Your task to perform on an android device: Go to Amazon Image 0: 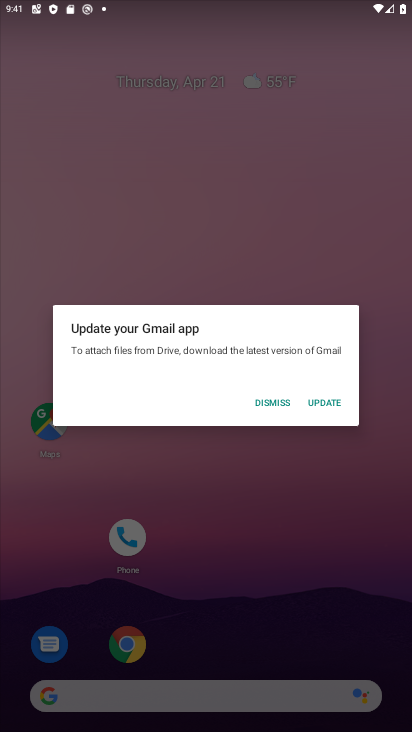
Step 0: press home button
Your task to perform on an android device: Go to Amazon Image 1: 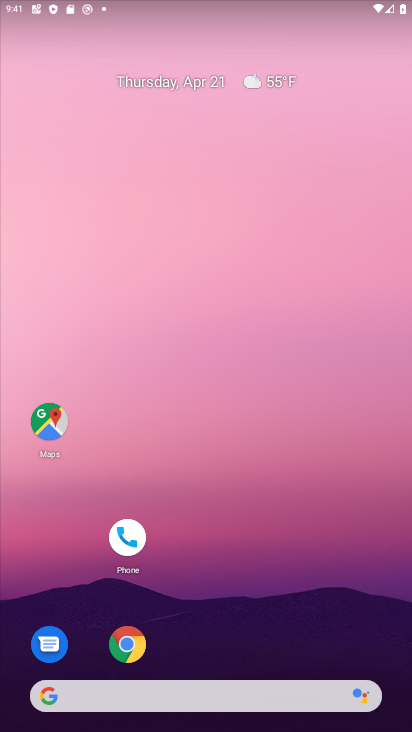
Step 1: drag from (225, 608) to (234, 119)
Your task to perform on an android device: Go to Amazon Image 2: 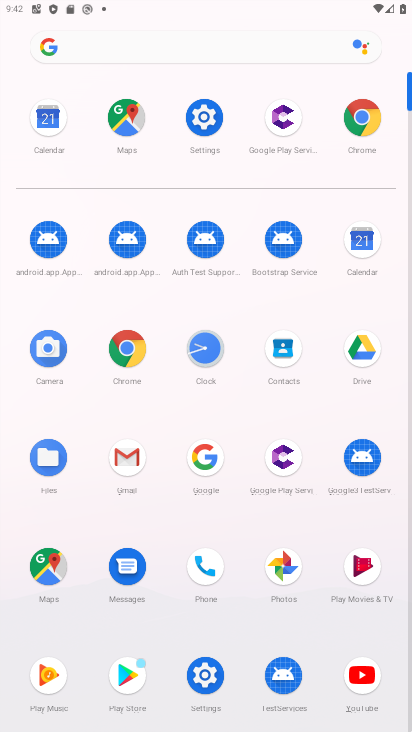
Step 2: click (122, 352)
Your task to perform on an android device: Go to Amazon Image 3: 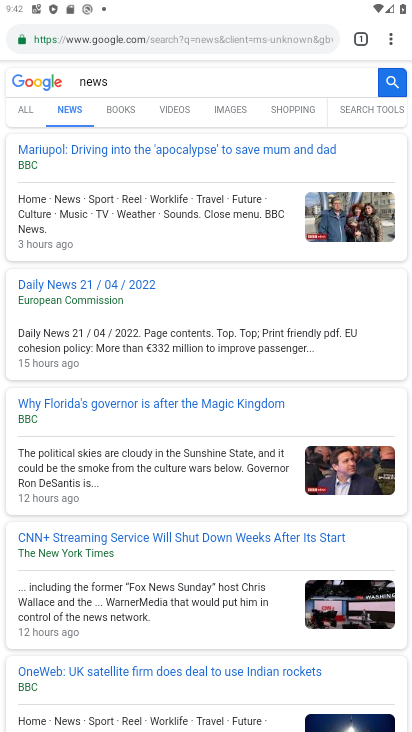
Step 3: click (262, 66)
Your task to perform on an android device: Go to Amazon Image 4: 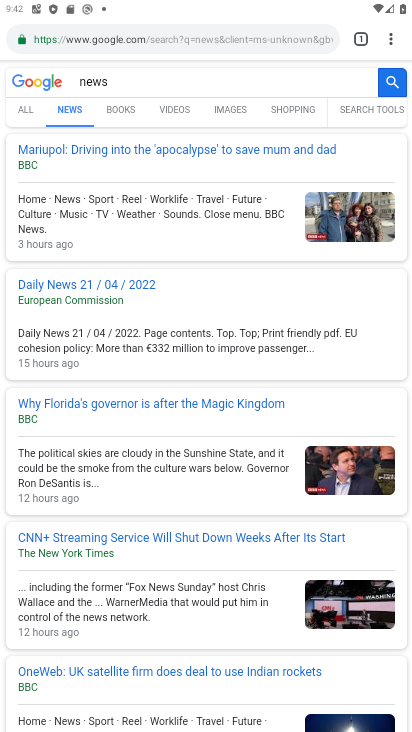
Step 4: click (253, 75)
Your task to perform on an android device: Go to Amazon Image 5: 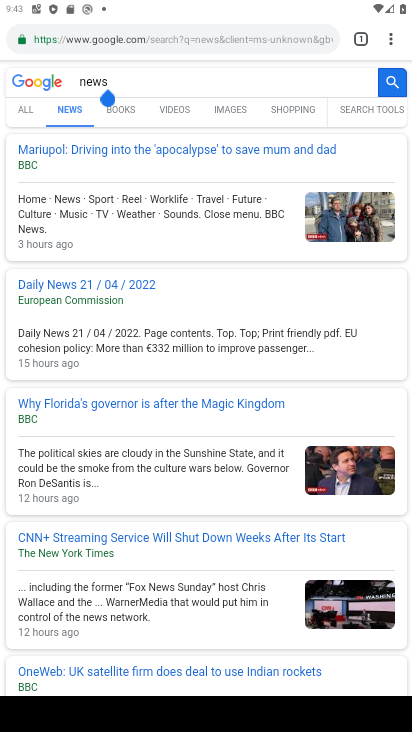
Step 5: click (219, 75)
Your task to perform on an android device: Go to Amazon Image 6: 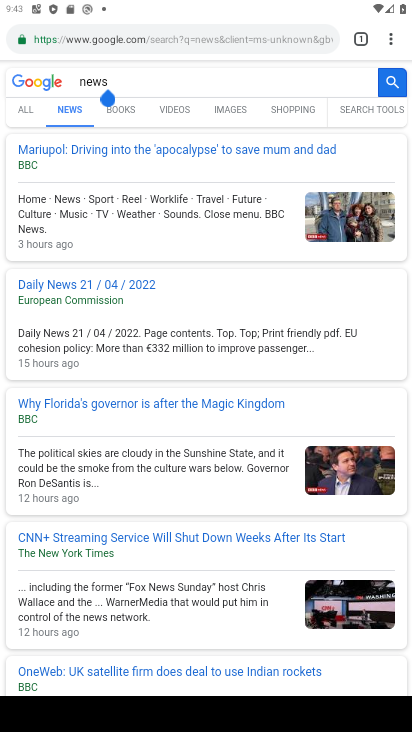
Step 6: click (256, 35)
Your task to perform on an android device: Go to Amazon Image 7: 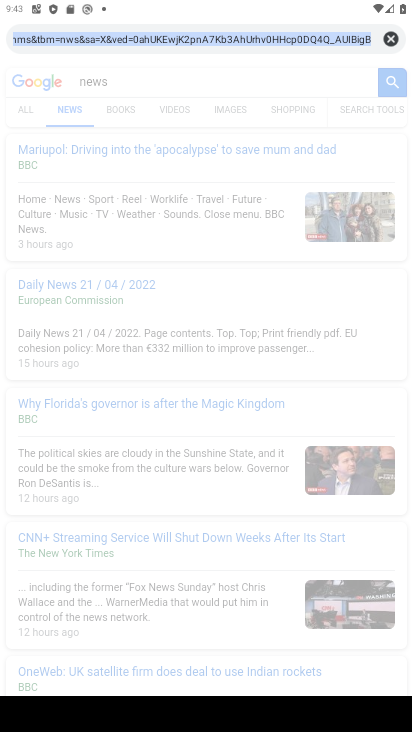
Step 7: type "amazon"
Your task to perform on an android device: Go to Amazon Image 8: 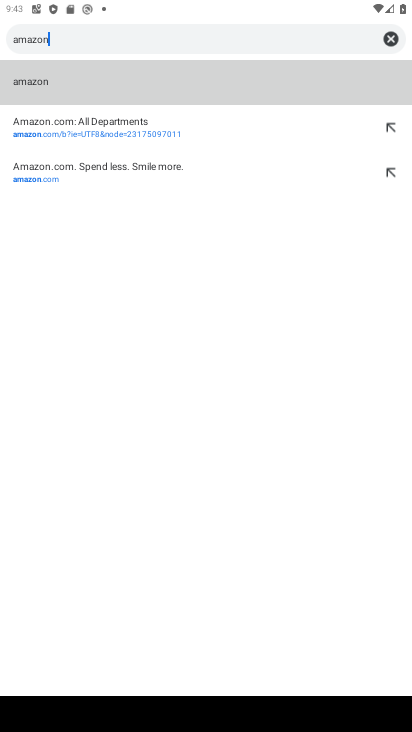
Step 8: click (35, 79)
Your task to perform on an android device: Go to Amazon Image 9: 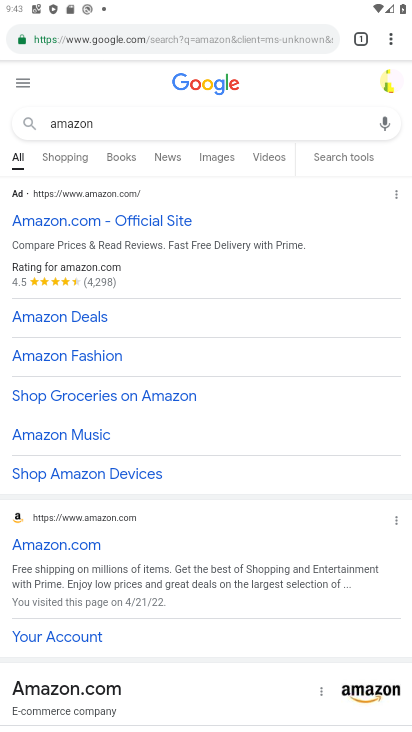
Step 9: click (119, 218)
Your task to perform on an android device: Go to Amazon Image 10: 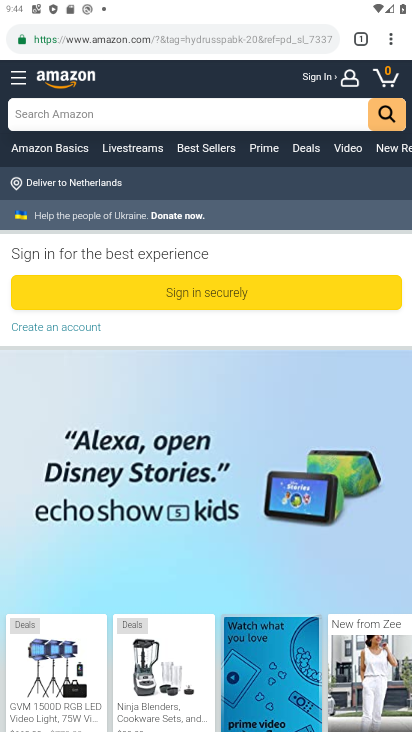
Step 10: task complete